Your task to perform on an android device: turn off improve location accuracy Image 0: 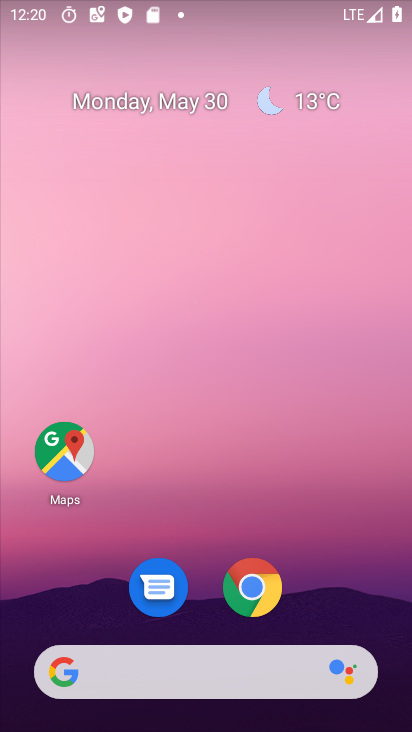
Step 0: drag from (320, 395) to (232, 30)
Your task to perform on an android device: turn off improve location accuracy Image 1: 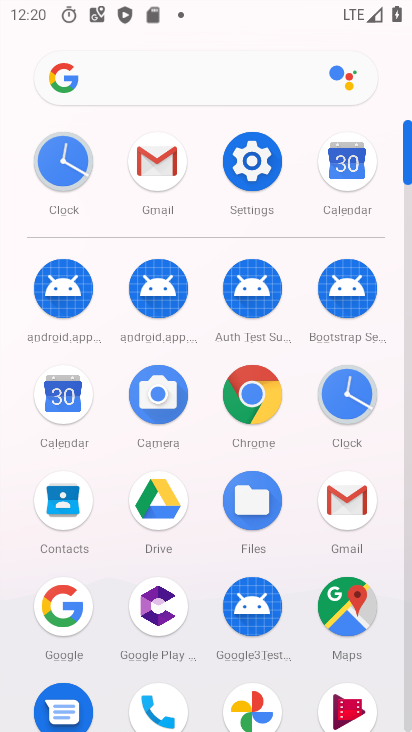
Step 1: click (260, 176)
Your task to perform on an android device: turn off improve location accuracy Image 2: 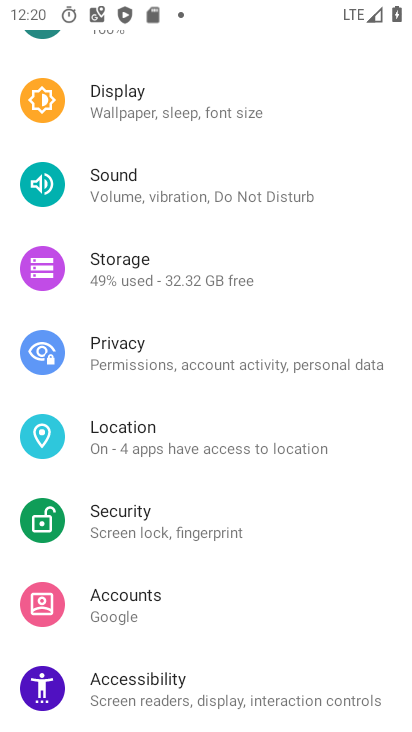
Step 2: click (220, 443)
Your task to perform on an android device: turn off improve location accuracy Image 3: 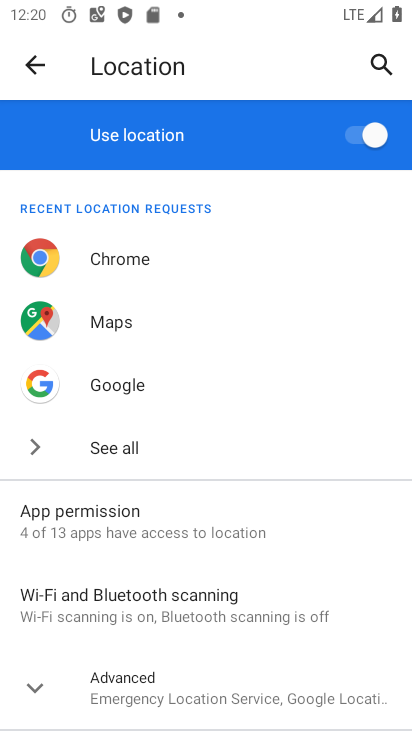
Step 3: drag from (265, 520) to (317, 63)
Your task to perform on an android device: turn off improve location accuracy Image 4: 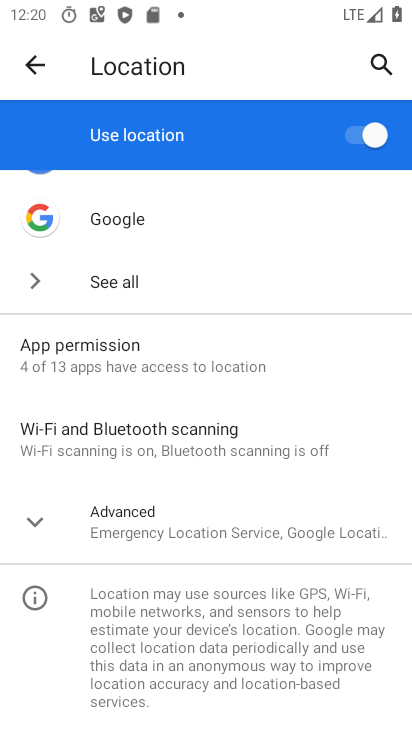
Step 4: click (178, 515)
Your task to perform on an android device: turn off improve location accuracy Image 5: 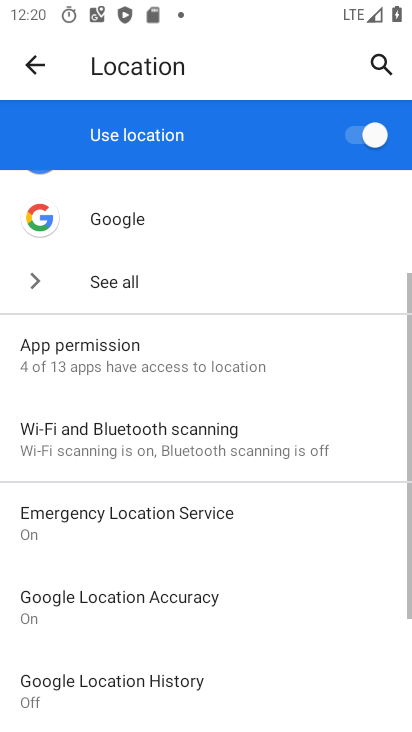
Step 5: drag from (249, 586) to (296, 156)
Your task to perform on an android device: turn off improve location accuracy Image 6: 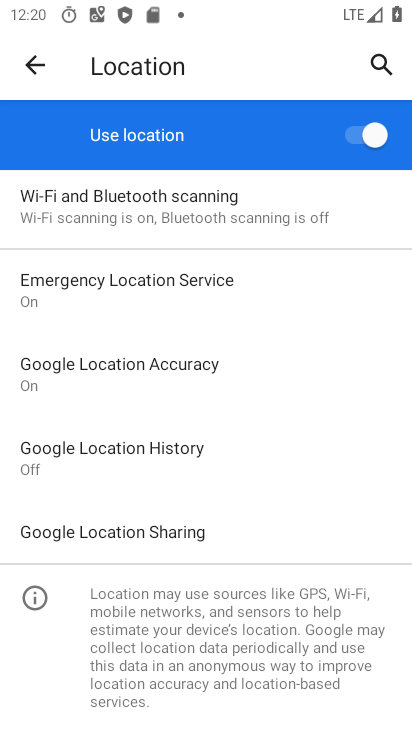
Step 6: click (166, 376)
Your task to perform on an android device: turn off improve location accuracy Image 7: 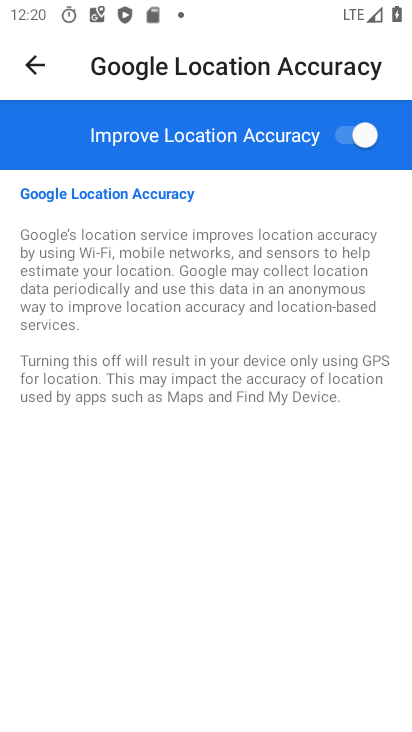
Step 7: click (372, 135)
Your task to perform on an android device: turn off improve location accuracy Image 8: 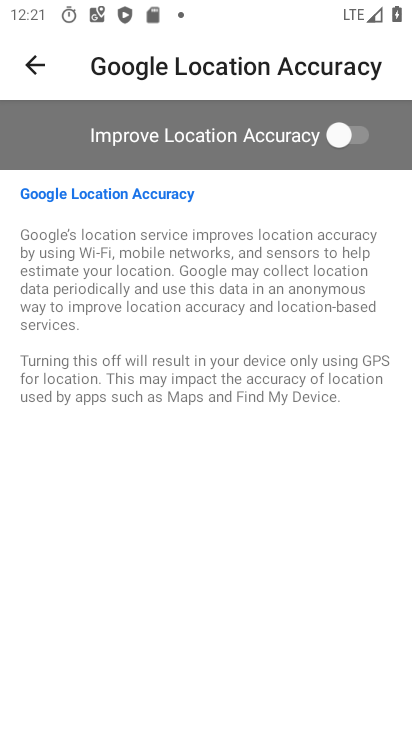
Step 8: task complete